Your task to perform on an android device: Search for flights from Tokyo to NYC Image 0: 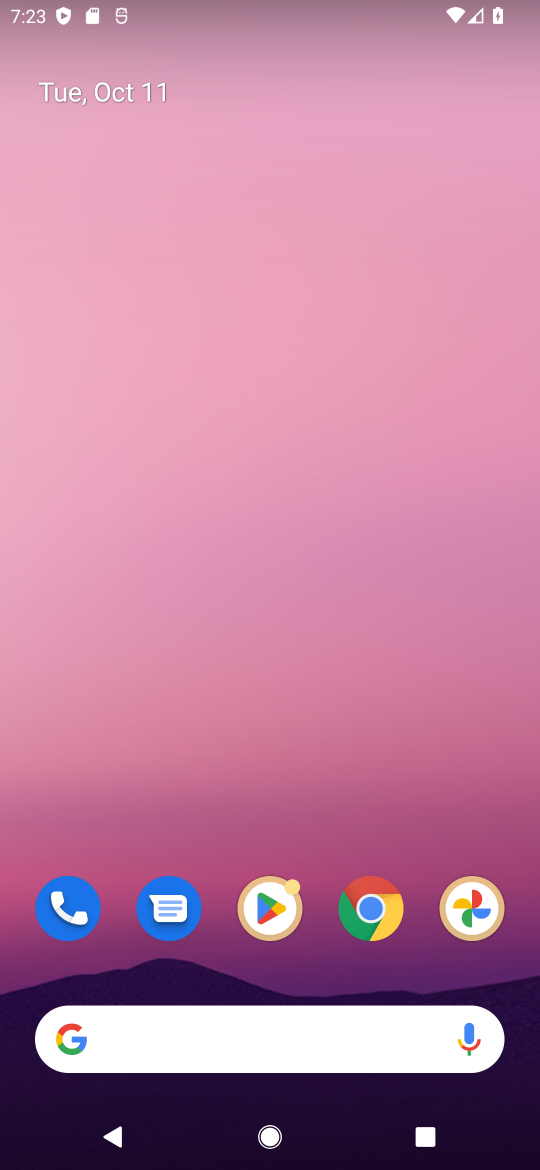
Step 0: click (254, 1041)
Your task to perform on an android device: Search for flights from Tokyo to NYC Image 1: 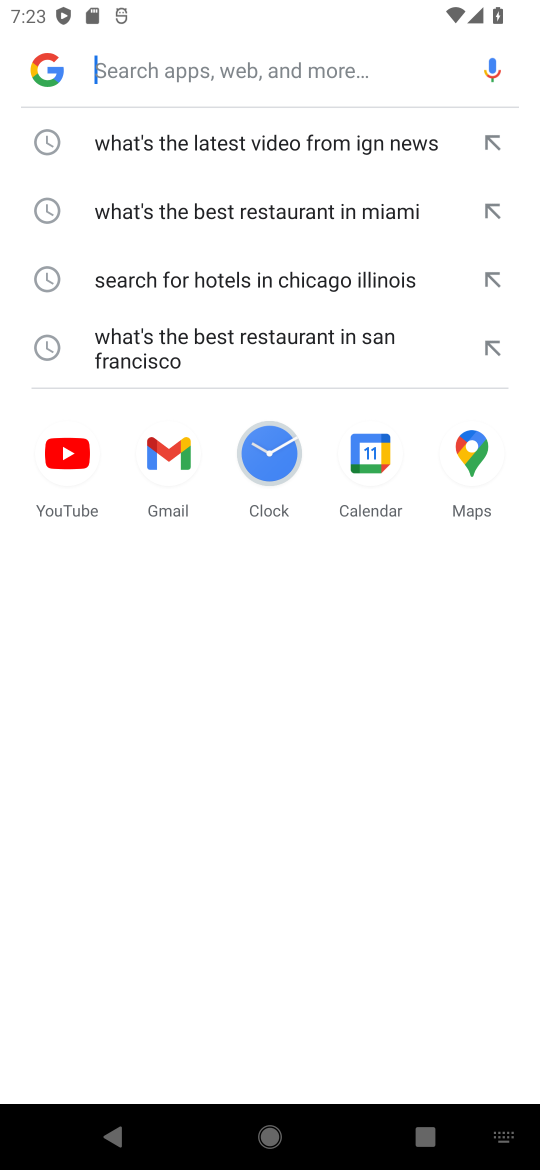
Step 1: type "Search for flights from Tokyo to NYC"
Your task to perform on an android device: Search for flights from Tokyo to NYC Image 2: 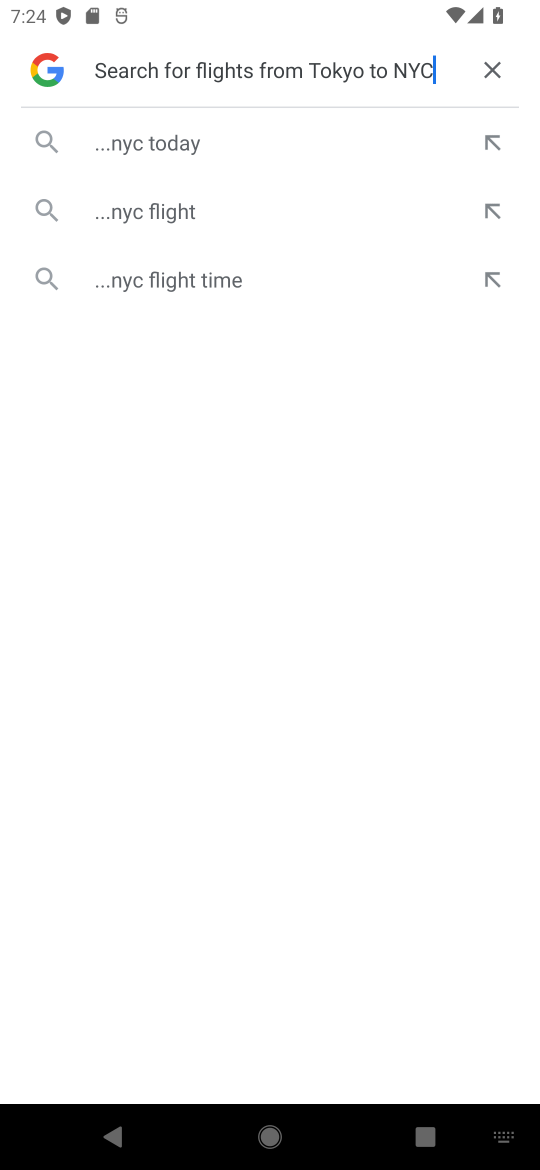
Step 2: click (146, 140)
Your task to perform on an android device: Search for flights from Tokyo to NYC Image 3: 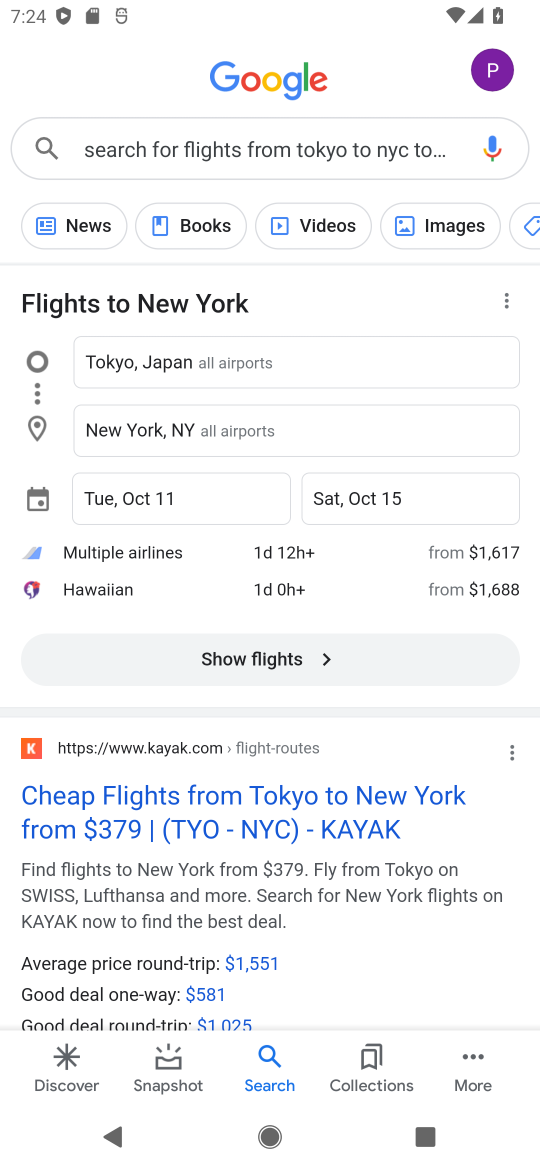
Step 3: click (259, 658)
Your task to perform on an android device: Search for flights from Tokyo to NYC Image 4: 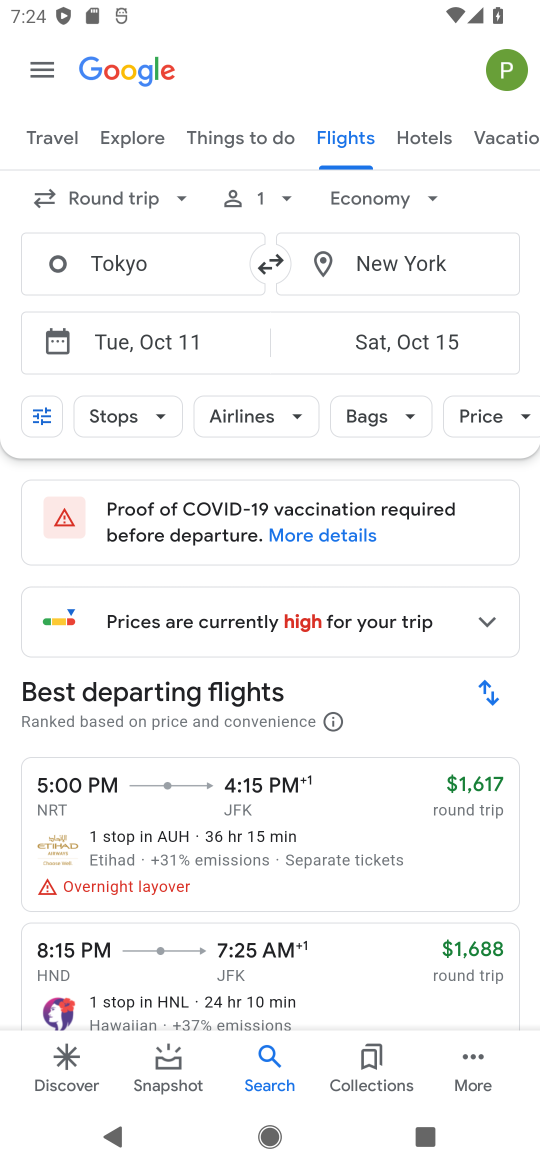
Step 4: task complete